Your task to perform on an android device: clear history in the chrome app Image 0: 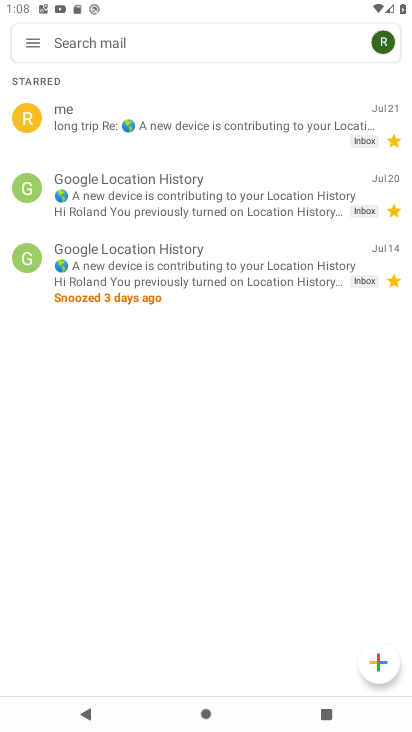
Step 0: press home button
Your task to perform on an android device: clear history in the chrome app Image 1: 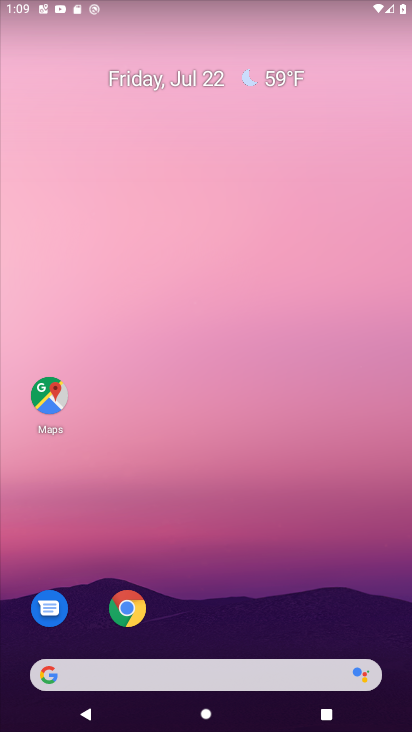
Step 1: drag from (209, 495) to (279, 6)
Your task to perform on an android device: clear history in the chrome app Image 2: 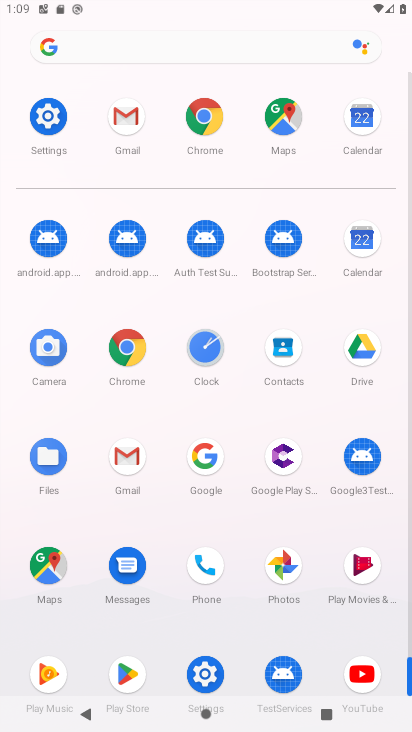
Step 2: click (123, 354)
Your task to perform on an android device: clear history in the chrome app Image 3: 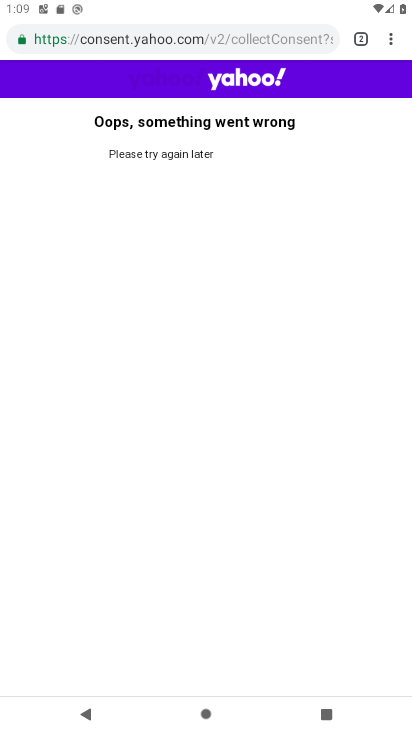
Step 3: click (394, 43)
Your task to perform on an android device: clear history in the chrome app Image 4: 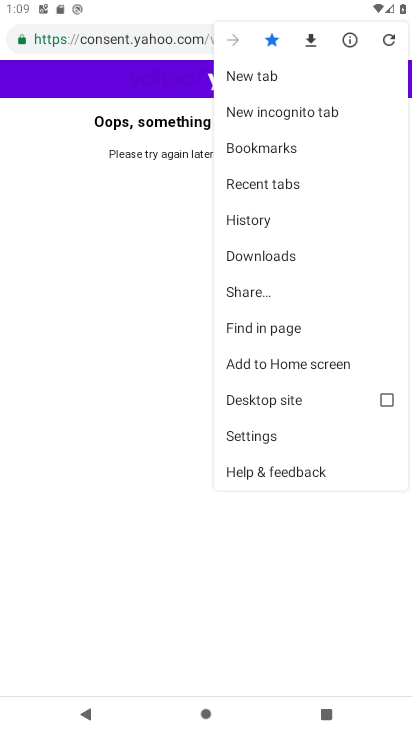
Step 4: click (251, 214)
Your task to perform on an android device: clear history in the chrome app Image 5: 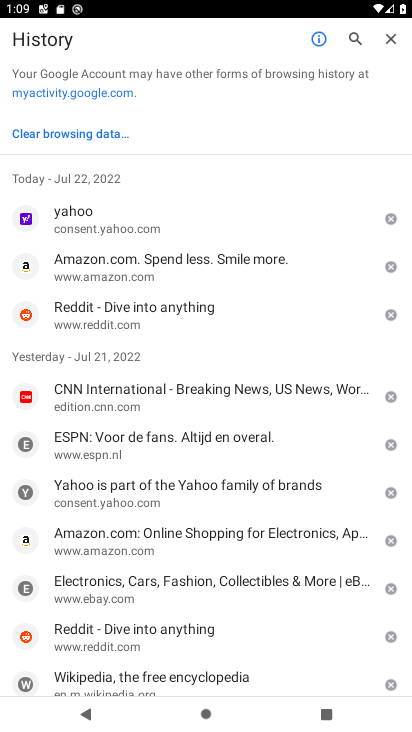
Step 5: click (93, 127)
Your task to perform on an android device: clear history in the chrome app Image 6: 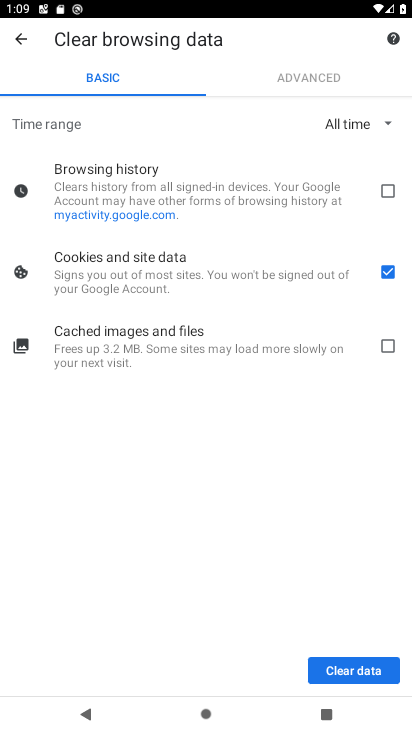
Step 6: click (371, 350)
Your task to perform on an android device: clear history in the chrome app Image 7: 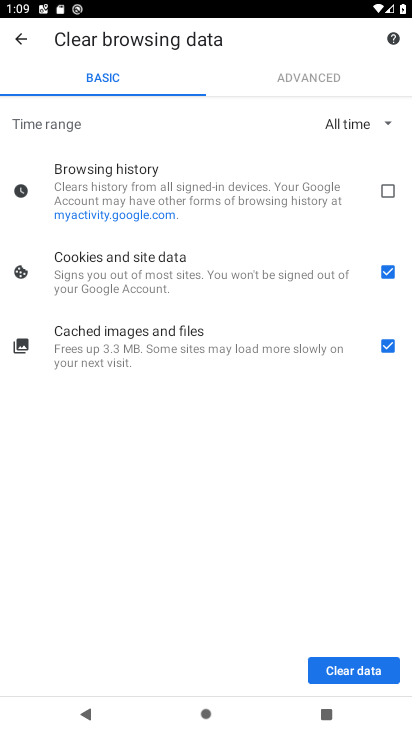
Step 7: click (388, 181)
Your task to perform on an android device: clear history in the chrome app Image 8: 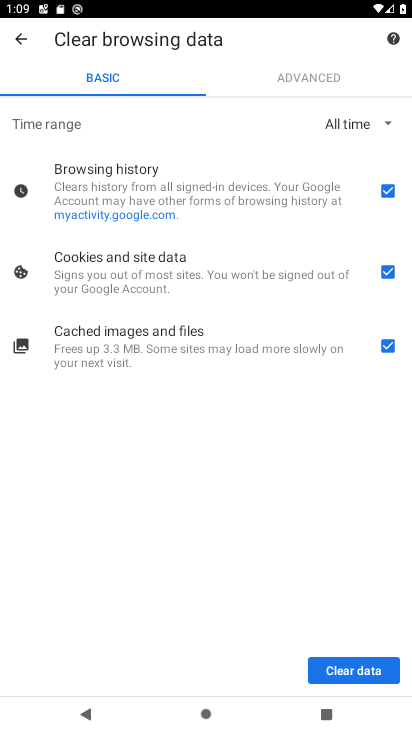
Step 8: click (330, 659)
Your task to perform on an android device: clear history in the chrome app Image 9: 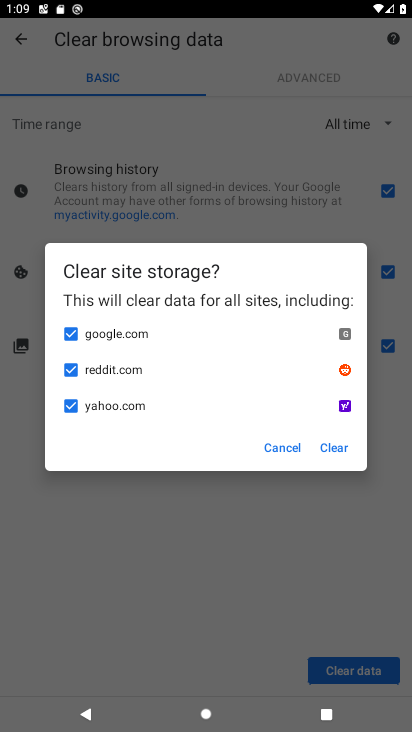
Step 9: click (331, 442)
Your task to perform on an android device: clear history in the chrome app Image 10: 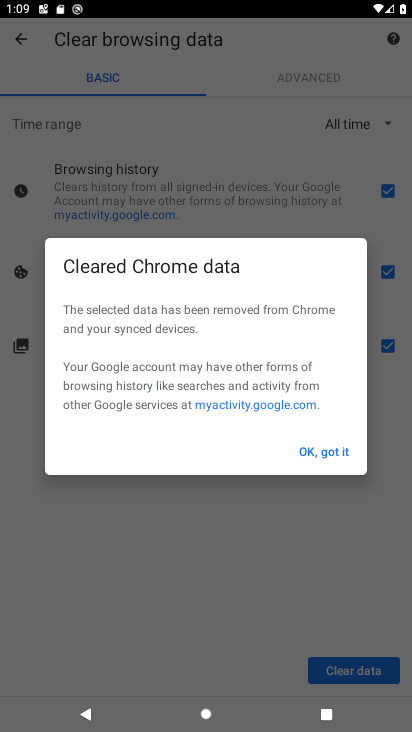
Step 10: click (330, 453)
Your task to perform on an android device: clear history in the chrome app Image 11: 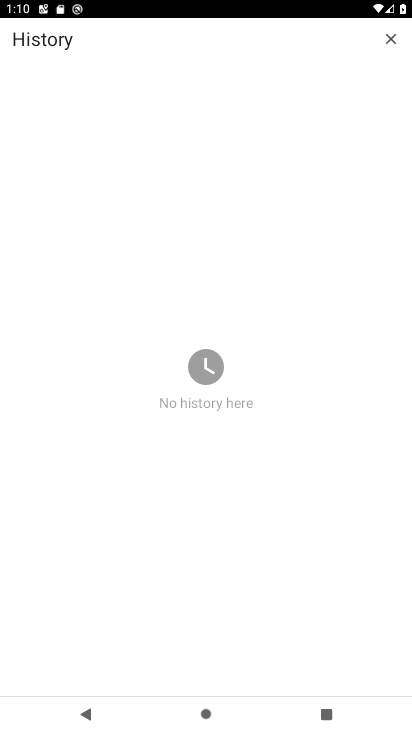
Step 11: task complete